Your task to perform on an android device: add a label to a message in the gmail app Image 0: 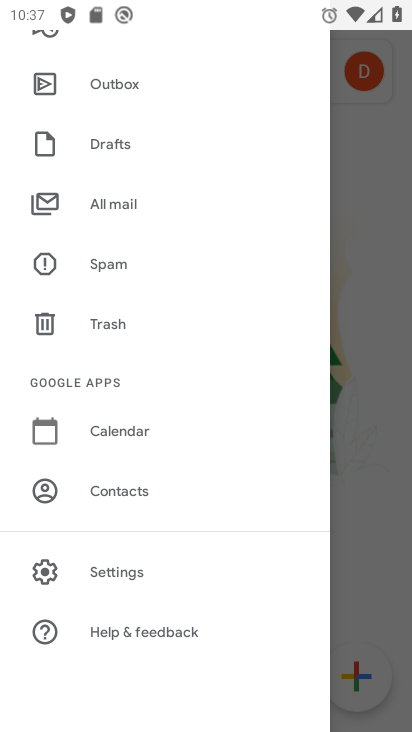
Step 0: press home button
Your task to perform on an android device: add a label to a message in the gmail app Image 1: 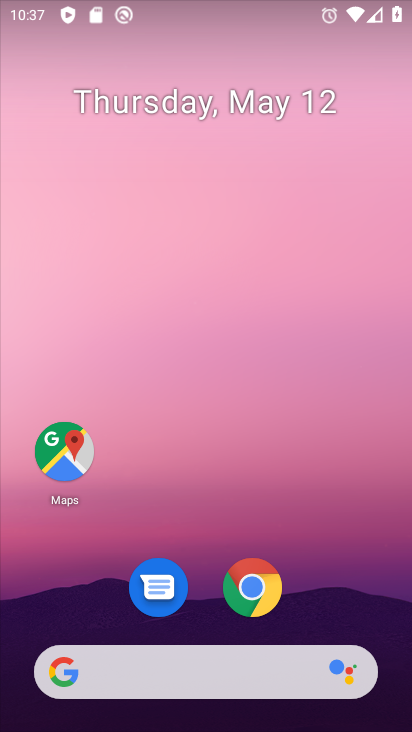
Step 1: drag from (335, 567) to (369, 92)
Your task to perform on an android device: add a label to a message in the gmail app Image 2: 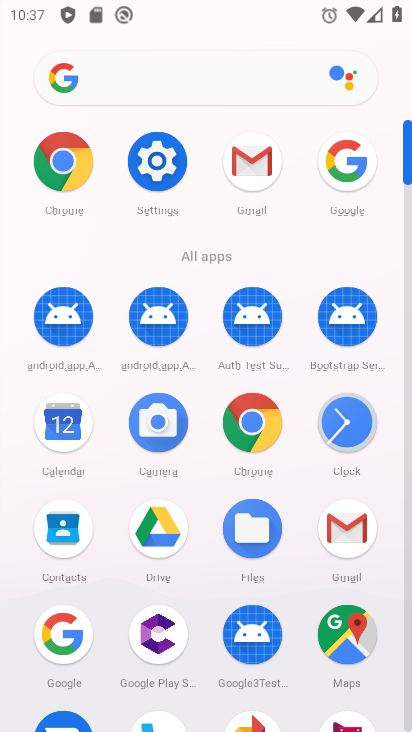
Step 2: click (278, 177)
Your task to perform on an android device: add a label to a message in the gmail app Image 3: 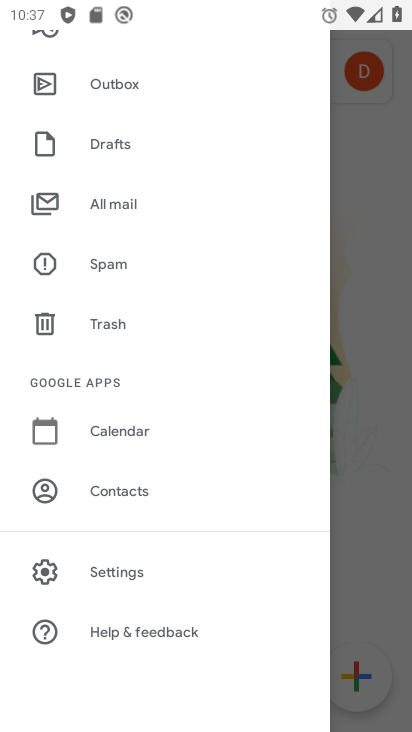
Step 3: click (143, 209)
Your task to perform on an android device: add a label to a message in the gmail app Image 4: 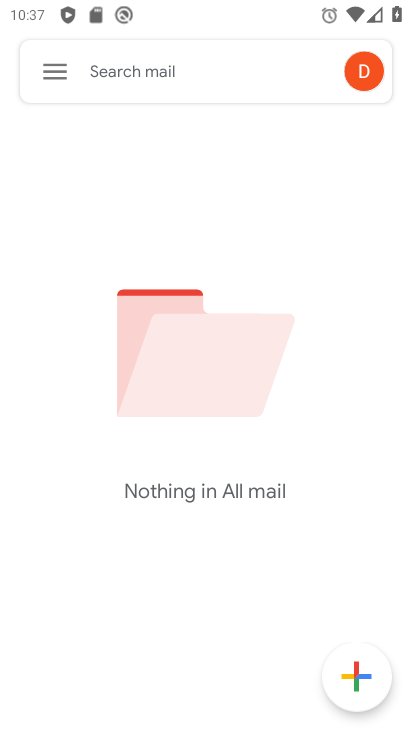
Step 4: task complete